Your task to perform on an android device: Open the map Image 0: 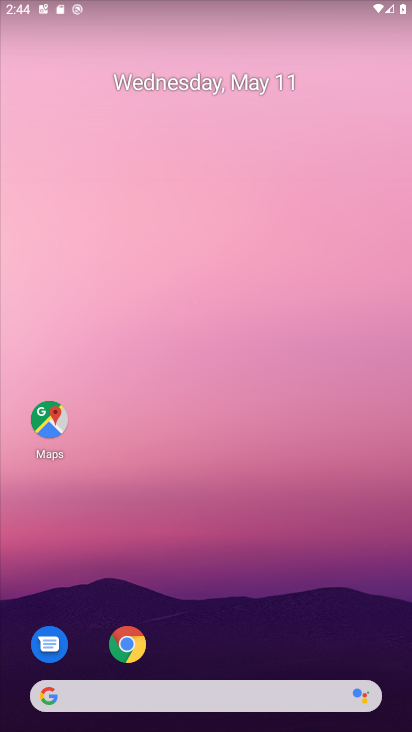
Step 0: click (57, 410)
Your task to perform on an android device: Open the map Image 1: 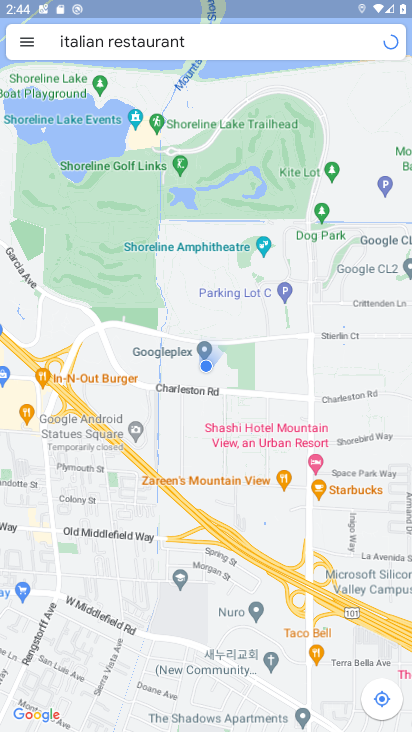
Step 1: task complete